Your task to perform on an android device: turn notification dots on Image 0: 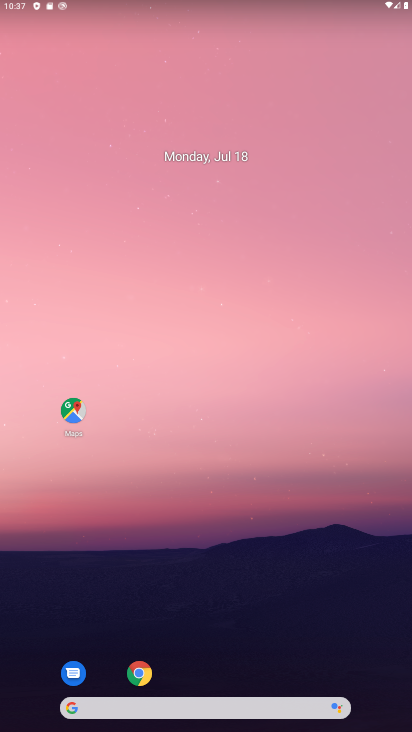
Step 0: press home button
Your task to perform on an android device: turn notification dots on Image 1: 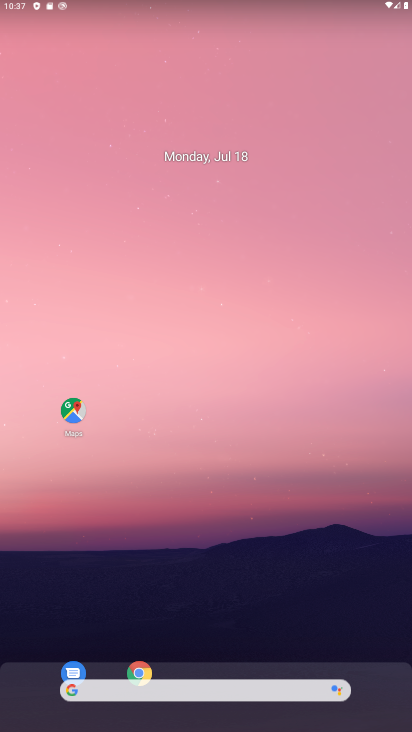
Step 1: drag from (216, 671) to (196, 63)
Your task to perform on an android device: turn notification dots on Image 2: 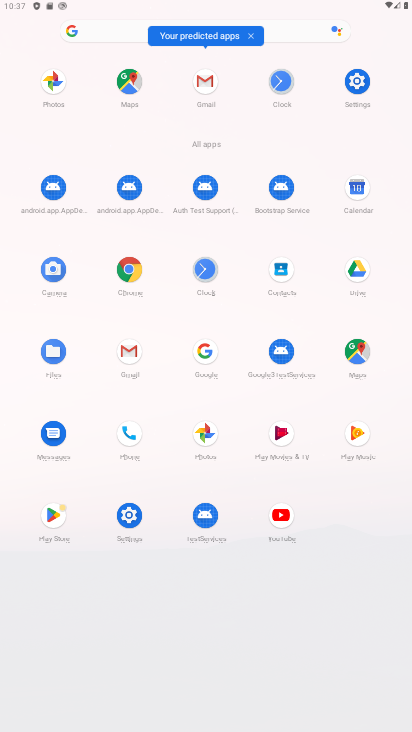
Step 2: click (124, 507)
Your task to perform on an android device: turn notification dots on Image 3: 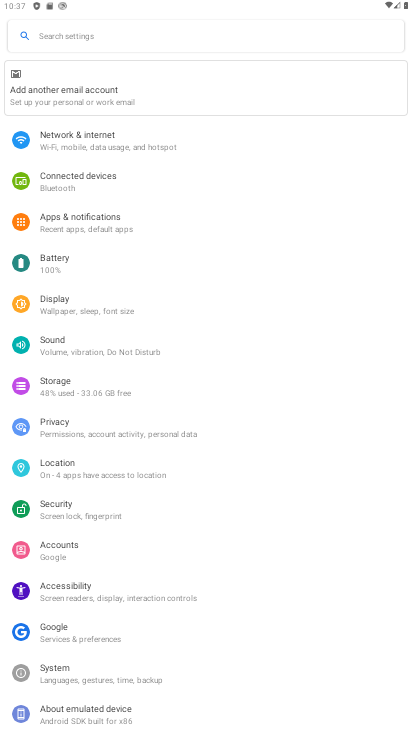
Step 3: click (128, 213)
Your task to perform on an android device: turn notification dots on Image 4: 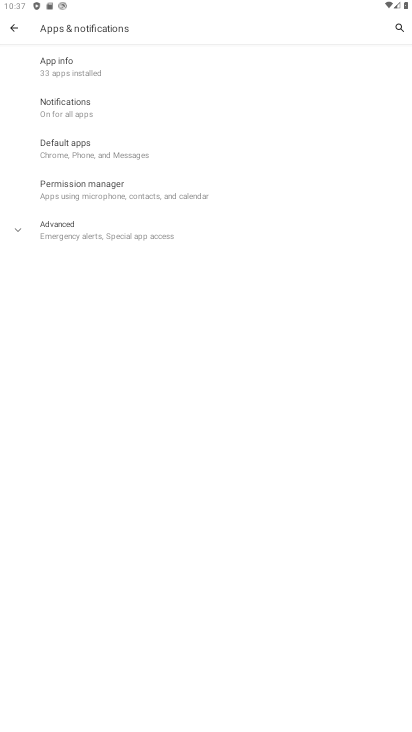
Step 4: click (93, 109)
Your task to perform on an android device: turn notification dots on Image 5: 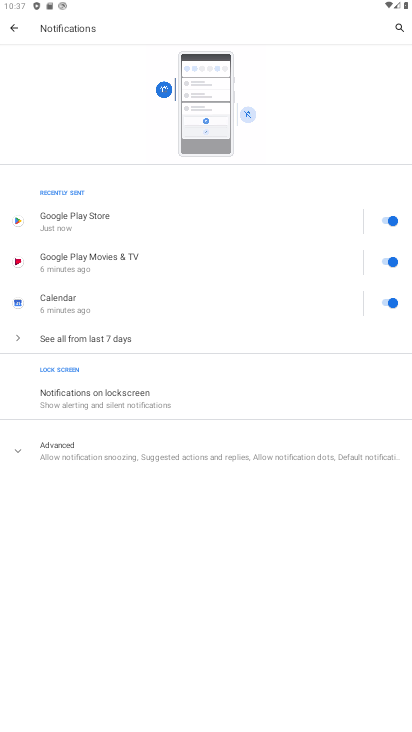
Step 5: click (19, 449)
Your task to perform on an android device: turn notification dots on Image 6: 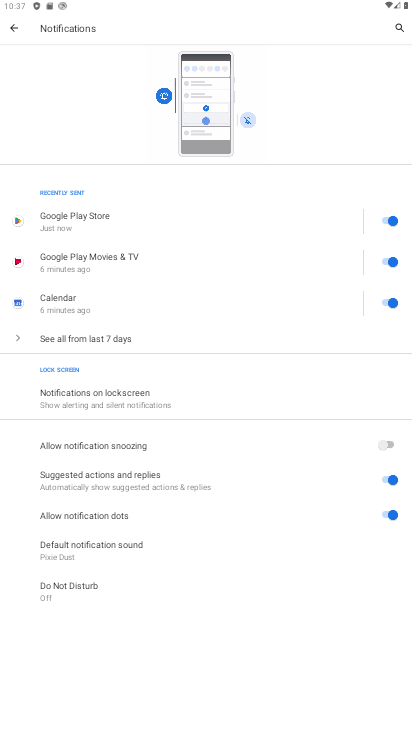
Step 6: task complete